Your task to perform on an android device: change the clock display to digital Image 0: 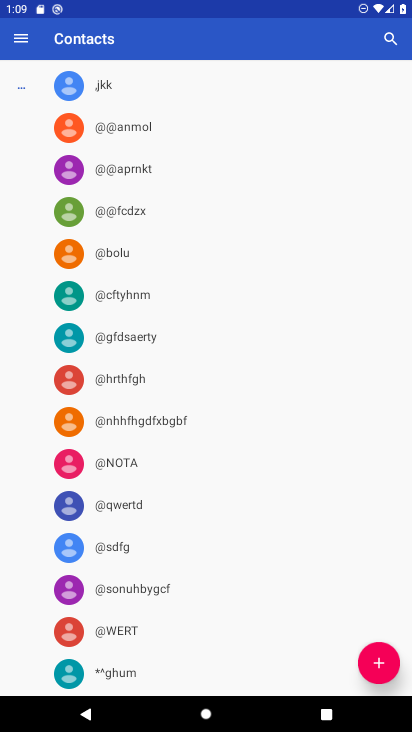
Step 0: press home button
Your task to perform on an android device: change the clock display to digital Image 1: 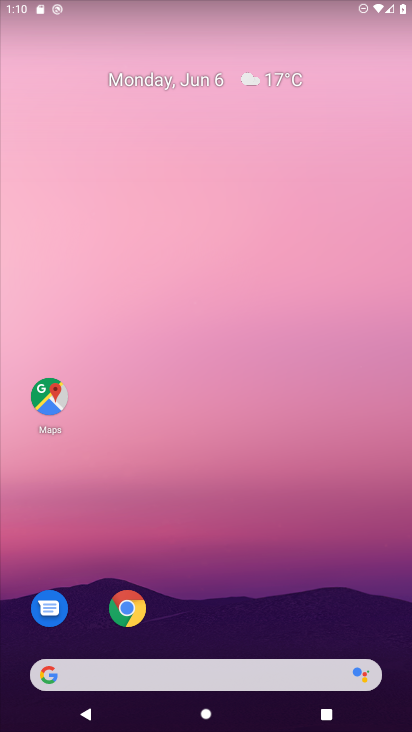
Step 1: drag from (255, 614) to (198, 256)
Your task to perform on an android device: change the clock display to digital Image 2: 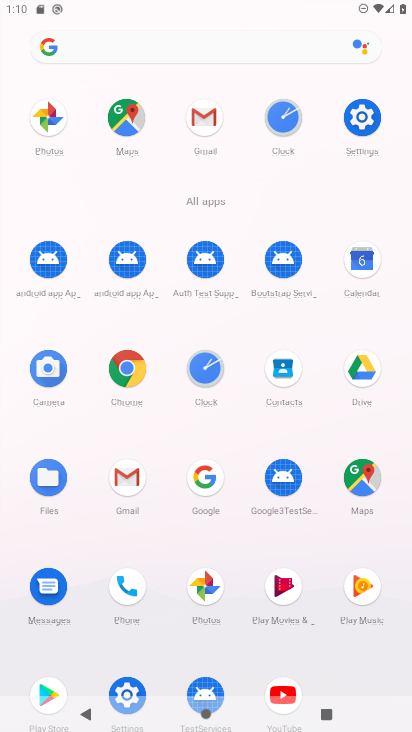
Step 2: click (364, 113)
Your task to perform on an android device: change the clock display to digital Image 3: 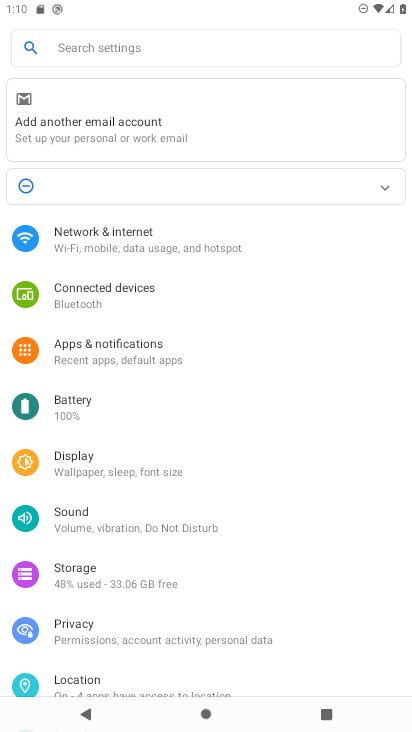
Step 3: press back button
Your task to perform on an android device: change the clock display to digital Image 4: 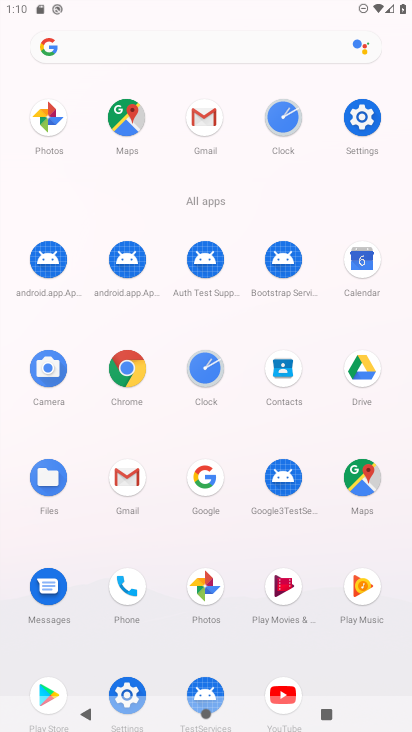
Step 4: click (280, 111)
Your task to perform on an android device: change the clock display to digital Image 5: 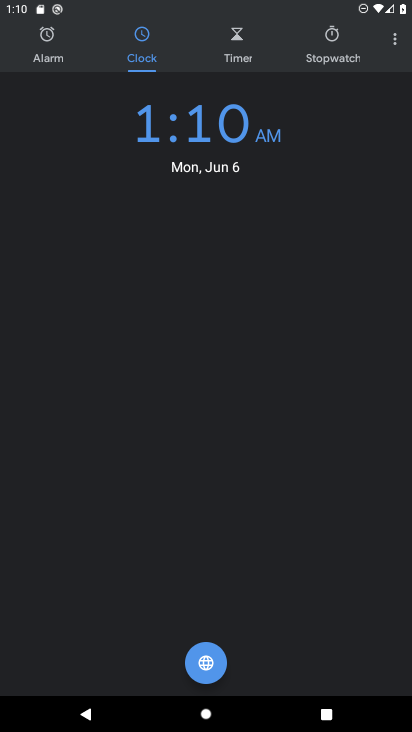
Step 5: click (401, 51)
Your task to perform on an android device: change the clock display to digital Image 6: 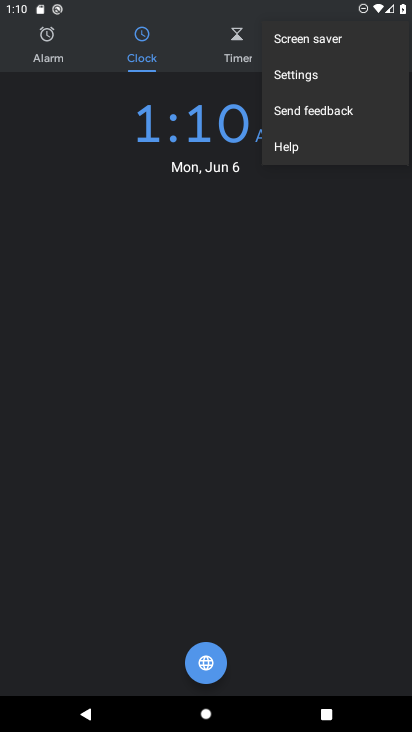
Step 6: click (328, 83)
Your task to perform on an android device: change the clock display to digital Image 7: 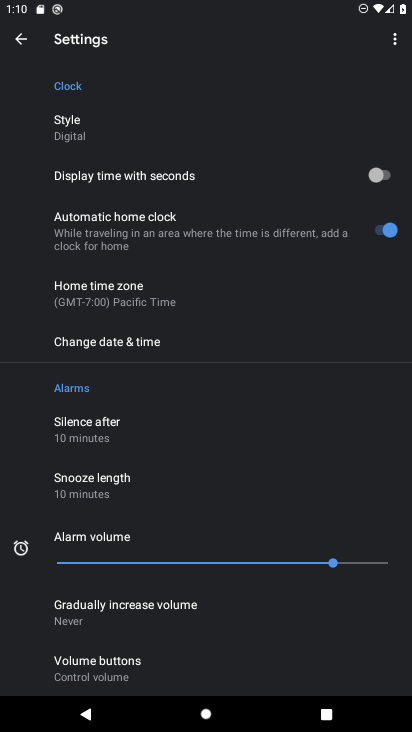
Step 7: click (100, 135)
Your task to perform on an android device: change the clock display to digital Image 8: 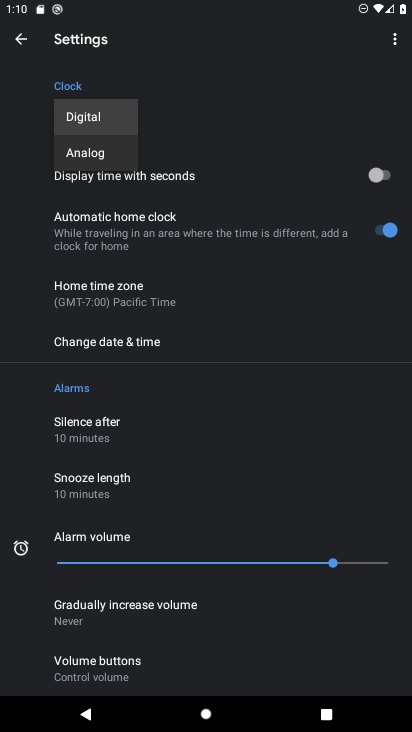
Step 8: task complete